Your task to perform on an android device: turn on translation in the chrome app Image 0: 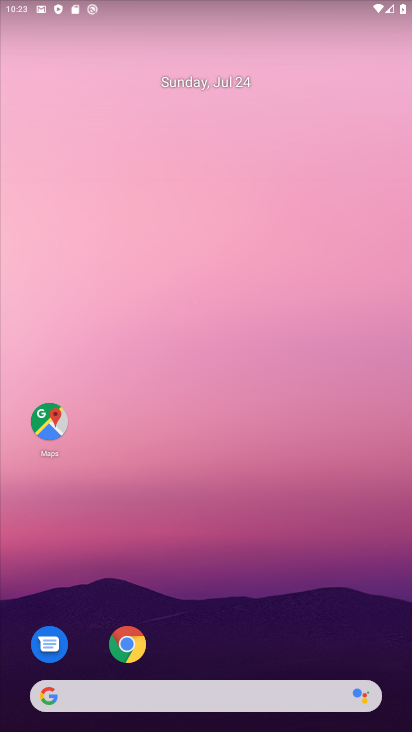
Step 0: drag from (229, 643) to (307, 17)
Your task to perform on an android device: turn on translation in the chrome app Image 1: 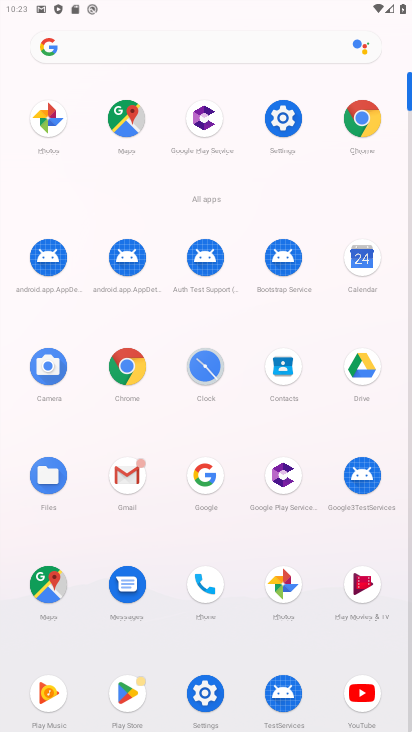
Step 1: click (372, 108)
Your task to perform on an android device: turn on translation in the chrome app Image 2: 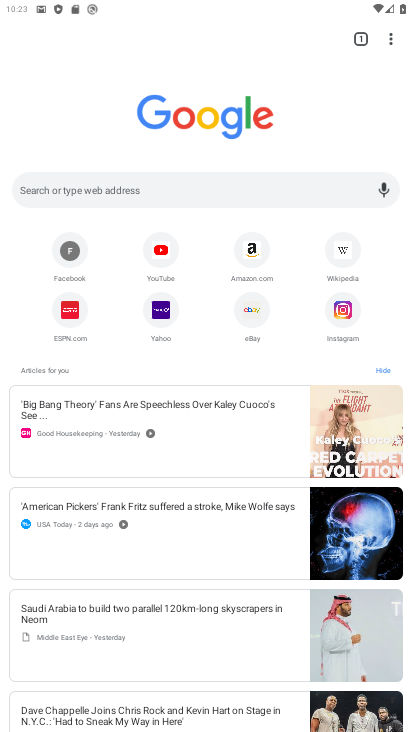
Step 2: click (393, 41)
Your task to perform on an android device: turn on translation in the chrome app Image 3: 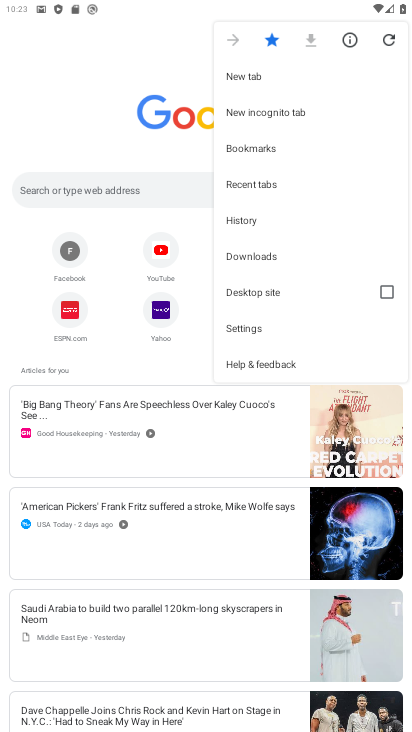
Step 3: click (277, 336)
Your task to perform on an android device: turn on translation in the chrome app Image 4: 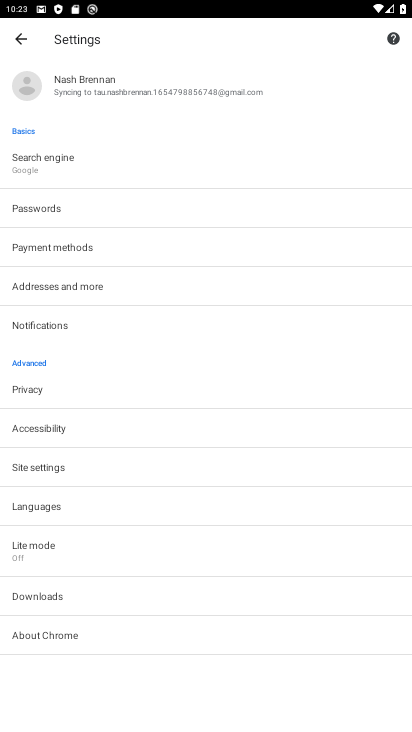
Step 4: click (111, 508)
Your task to perform on an android device: turn on translation in the chrome app Image 5: 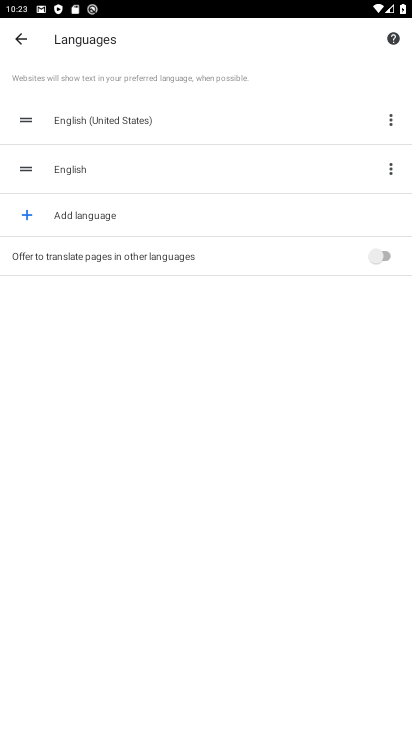
Step 5: click (376, 252)
Your task to perform on an android device: turn on translation in the chrome app Image 6: 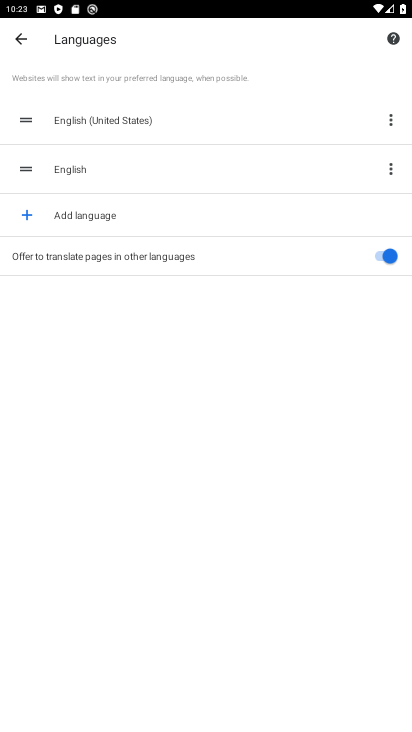
Step 6: task complete